Your task to perform on an android device: find snoozed emails in the gmail app Image 0: 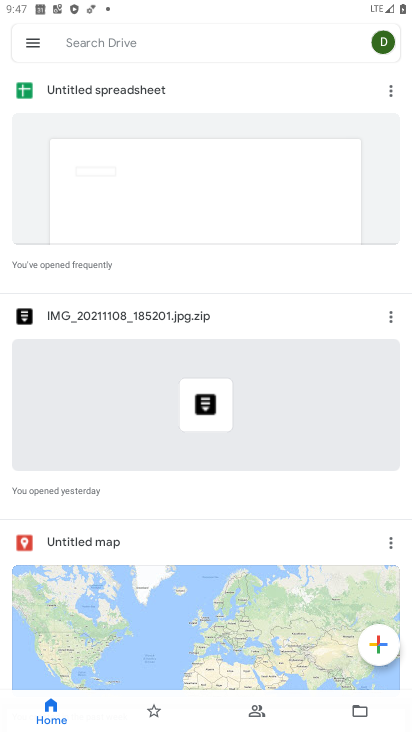
Step 0: press home button
Your task to perform on an android device: find snoozed emails in the gmail app Image 1: 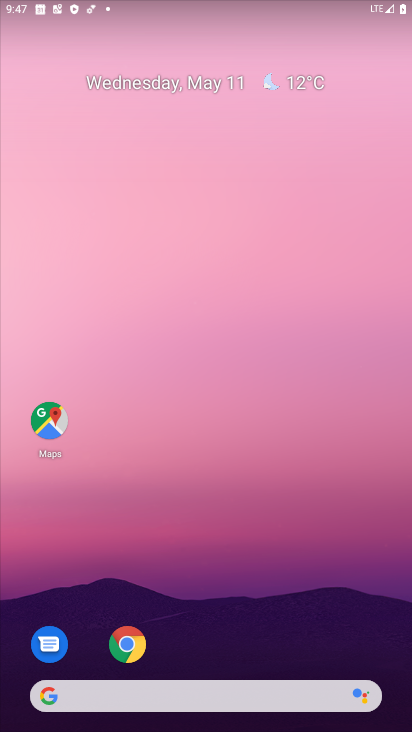
Step 1: drag from (266, 605) to (271, 153)
Your task to perform on an android device: find snoozed emails in the gmail app Image 2: 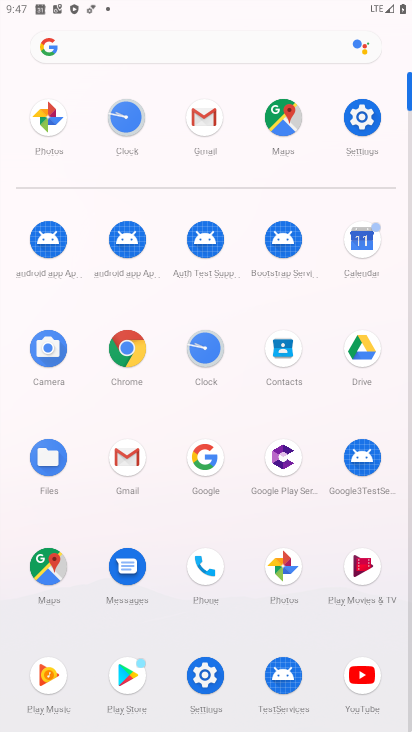
Step 2: click (194, 128)
Your task to perform on an android device: find snoozed emails in the gmail app Image 3: 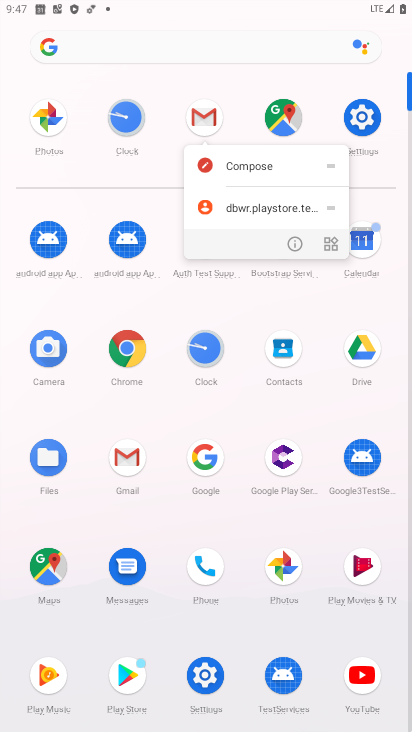
Step 3: click (191, 128)
Your task to perform on an android device: find snoozed emails in the gmail app Image 4: 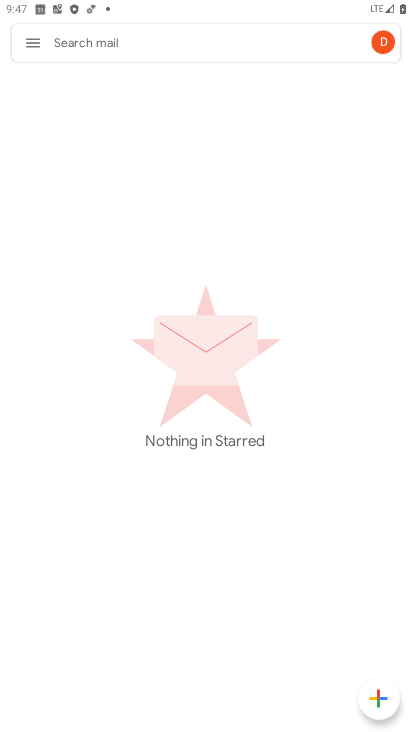
Step 4: click (31, 41)
Your task to perform on an android device: find snoozed emails in the gmail app Image 5: 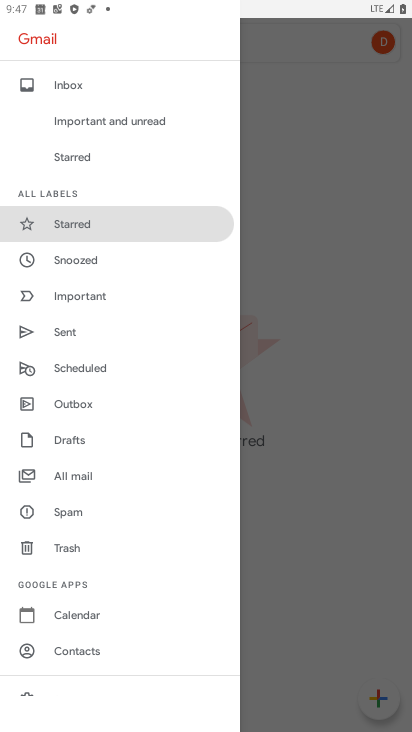
Step 5: click (92, 261)
Your task to perform on an android device: find snoozed emails in the gmail app Image 6: 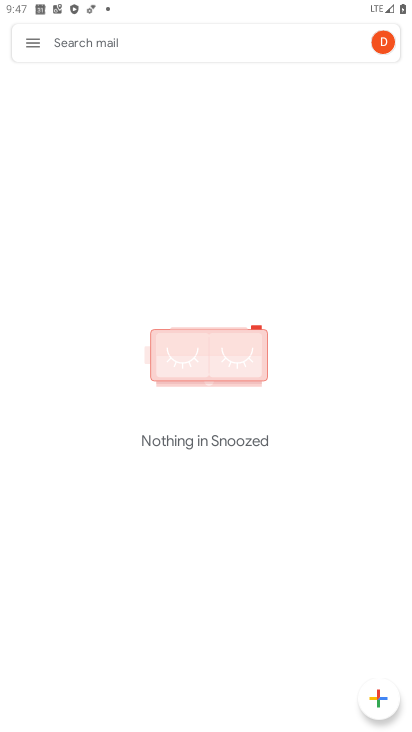
Step 6: task complete